Your task to perform on an android device: turn off improve location accuracy Image 0: 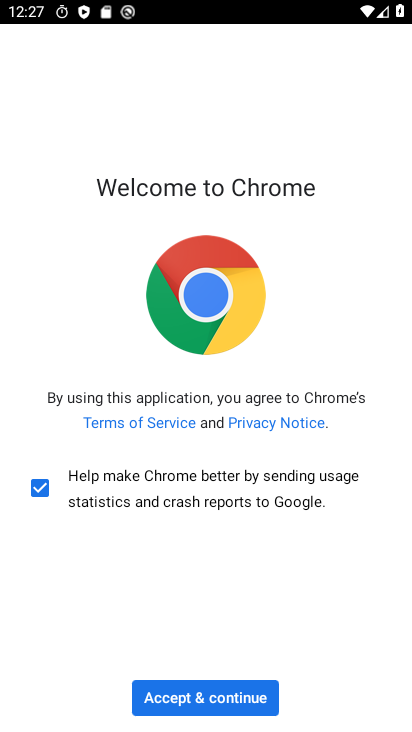
Step 0: press home button
Your task to perform on an android device: turn off improve location accuracy Image 1: 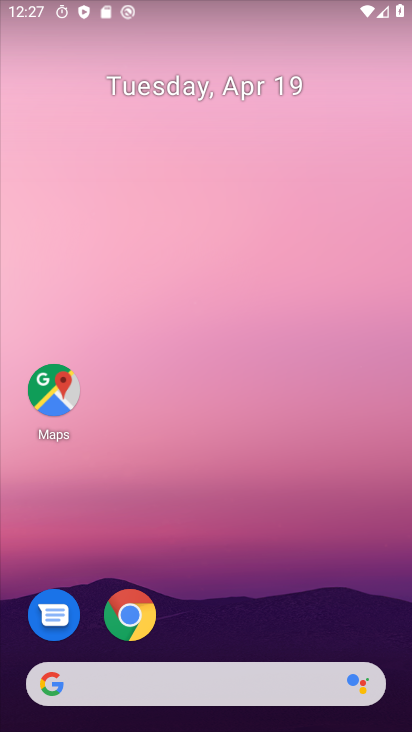
Step 1: drag from (368, 607) to (331, 24)
Your task to perform on an android device: turn off improve location accuracy Image 2: 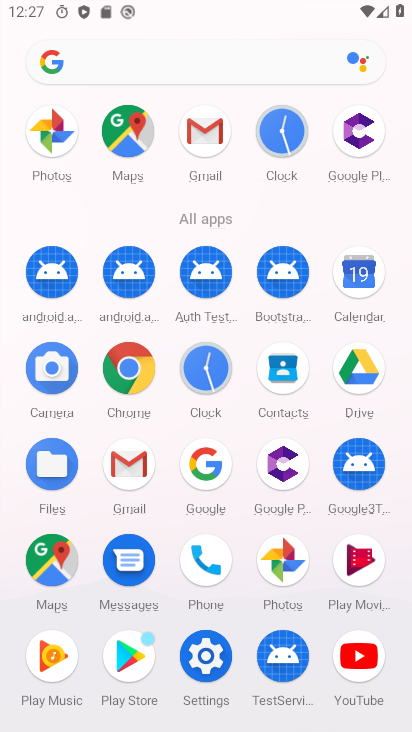
Step 2: click (201, 664)
Your task to perform on an android device: turn off improve location accuracy Image 3: 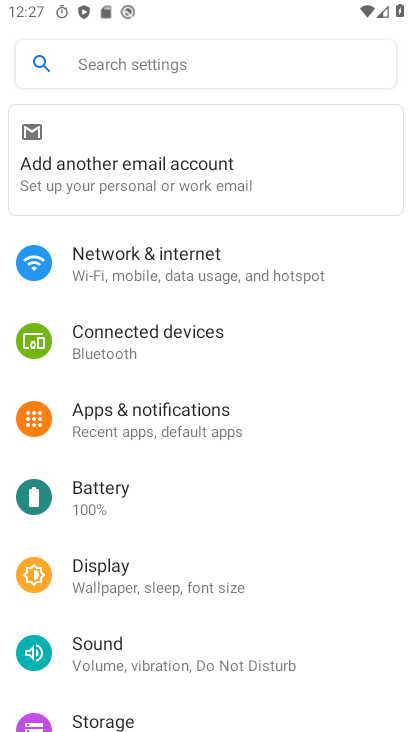
Step 3: drag from (370, 552) to (366, 352)
Your task to perform on an android device: turn off improve location accuracy Image 4: 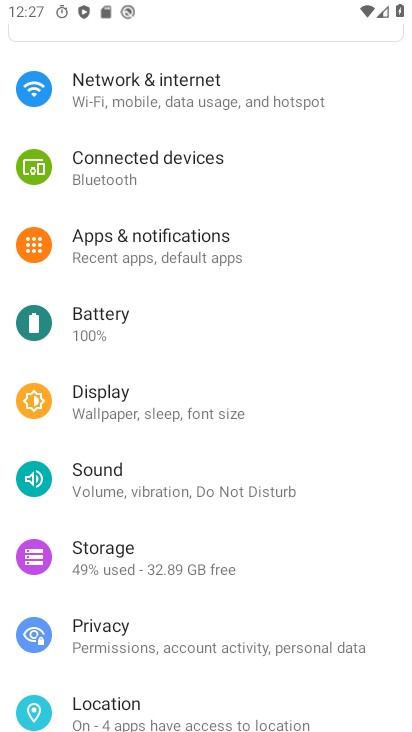
Step 4: drag from (340, 548) to (336, 228)
Your task to perform on an android device: turn off improve location accuracy Image 5: 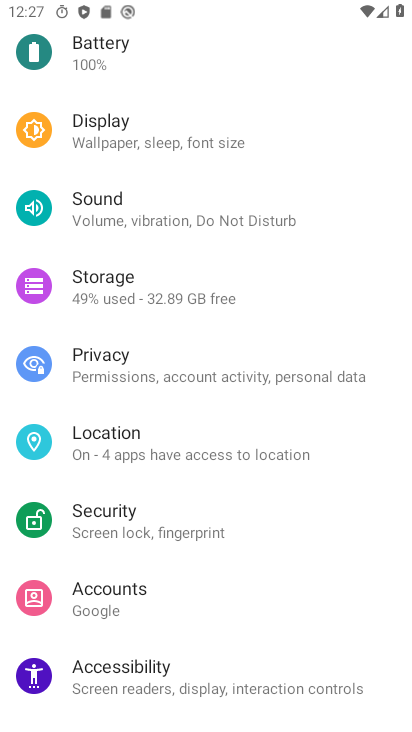
Step 5: drag from (348, 546) to (350, 286)
Your task to perform on an android device: turn off improve location accuracy Image 6: 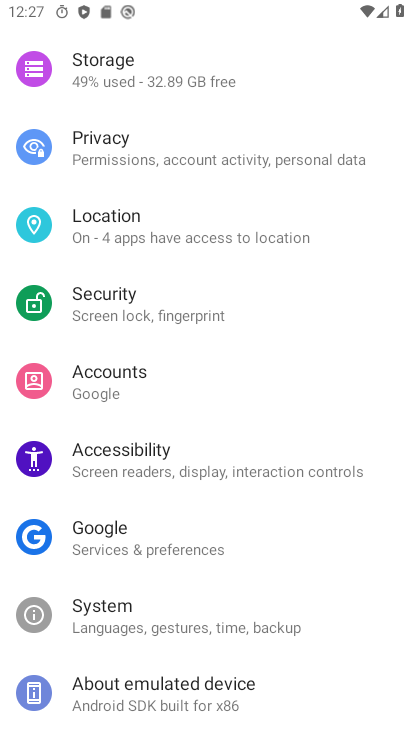
Step 6: click (205, 235)
Your task to perform on an android device: turn off improve location accuracy Image 7: 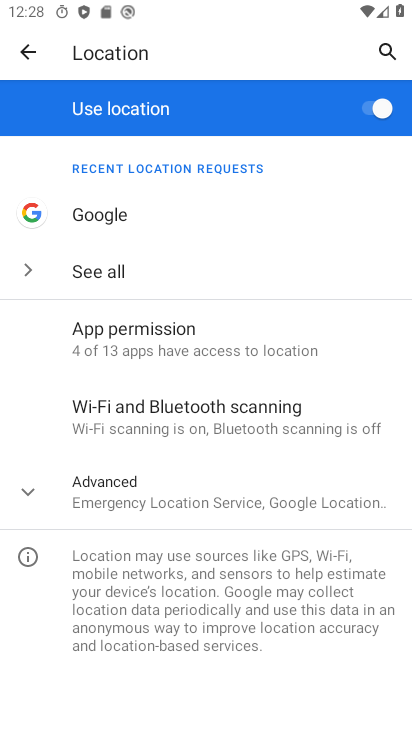
Step 7: click (258, 496)
Your task to perform on an android device: turn off improve location accuracy Image 8: 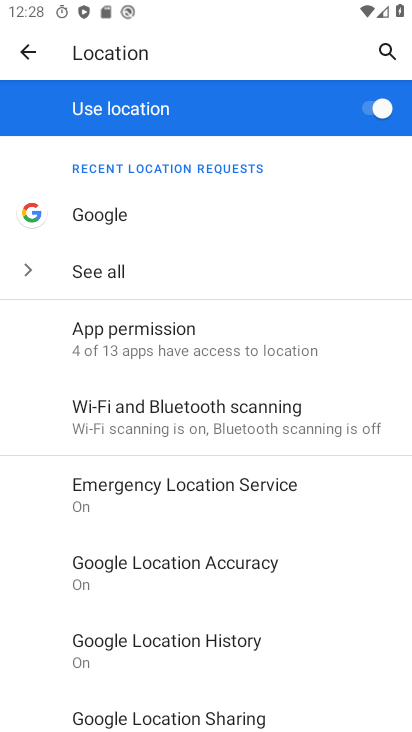
Step 8: drag from (359, 596) to (369, 321)
Your task to perform on an android device: turn off improve location accuracy Image 9: 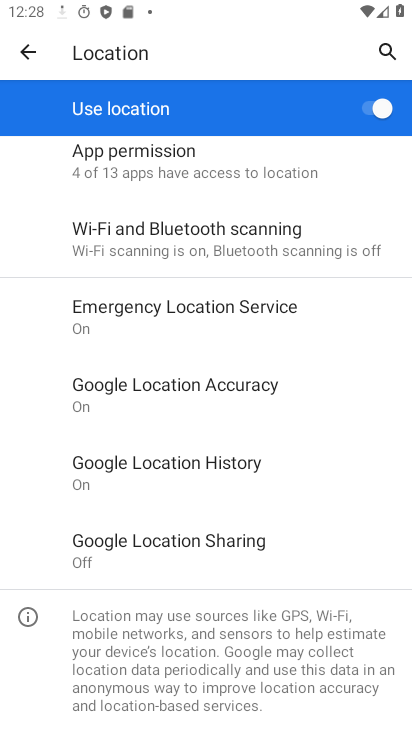
Step 9: drag from (335, 546) to (326, 277)
Your task to perform on an android device: turn off improve location accuracy Image 10: 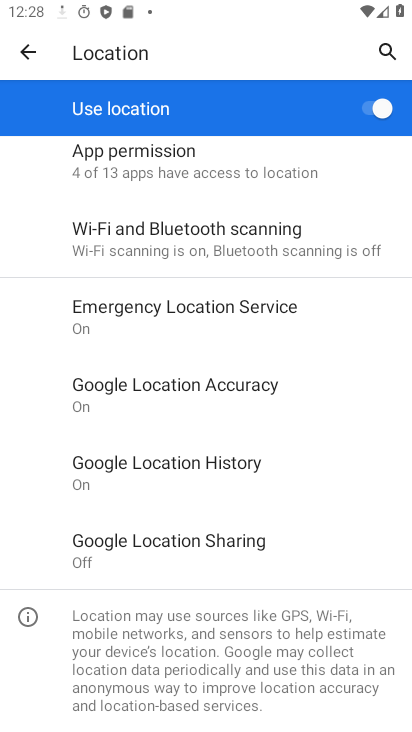
Step 10: click (230, 378)
Your task to perform on an android device: turn off improve location accuracy Image 11: 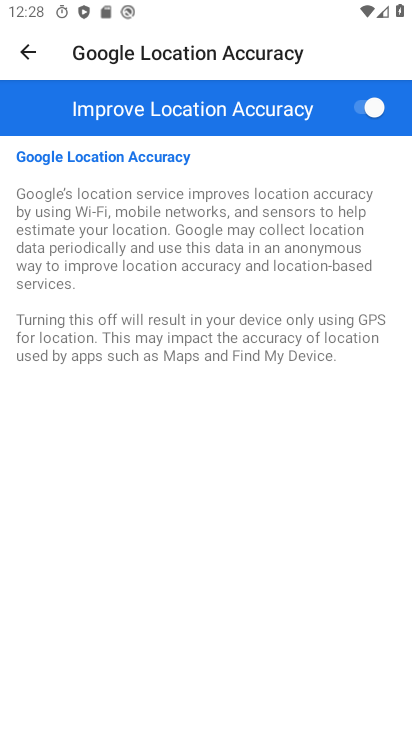
Step 11: click (366, 108)
Your task to perform on an android device: turn off improve location accuracy Image 12: 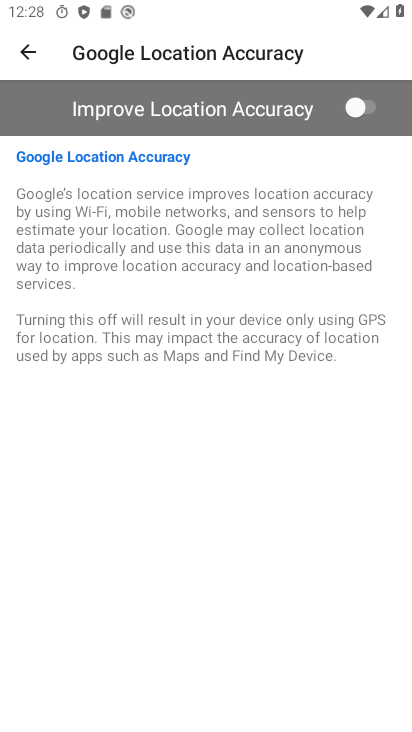
Step 12: task complete